Your task to perform on an android device: Open the Play Movies app and select the watchlist tab. Image 0: 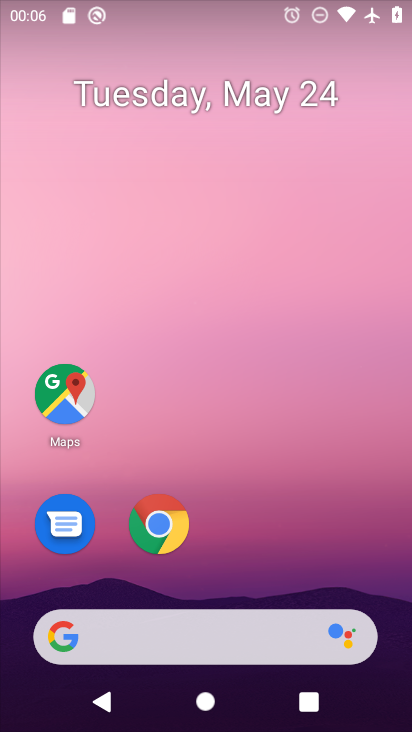
Step 0: drag from (219, 576) to (220, 286)
Your task to perform on an android device: Open the Play Movies app and select the watchlist tab. Image 1: 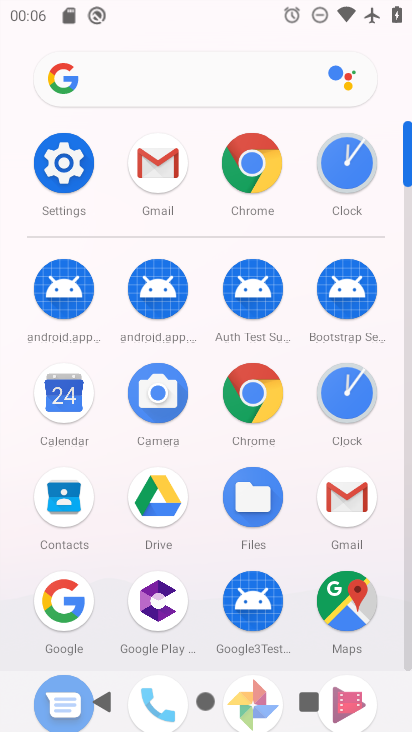
Step 1: drag from (280, 609) to (282, 286)
Your task to perform on an android device: Open the Play Movies app and select the watchlist tab. Image 2: 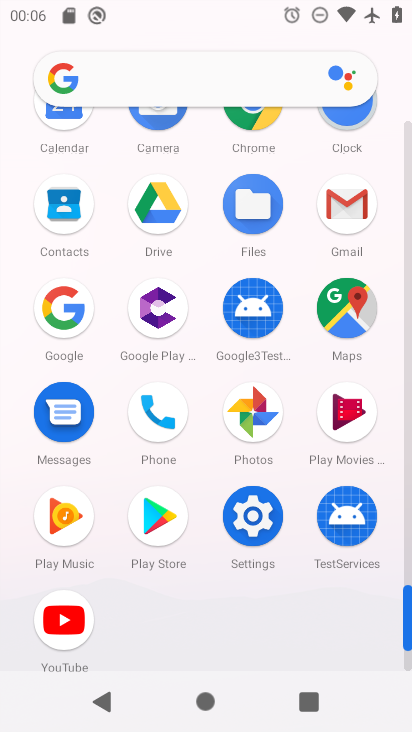
Step 2: click (335, 409)
Your task to perform on an android device: Open the Play Movies app and select the watchlist tab. Image 3: 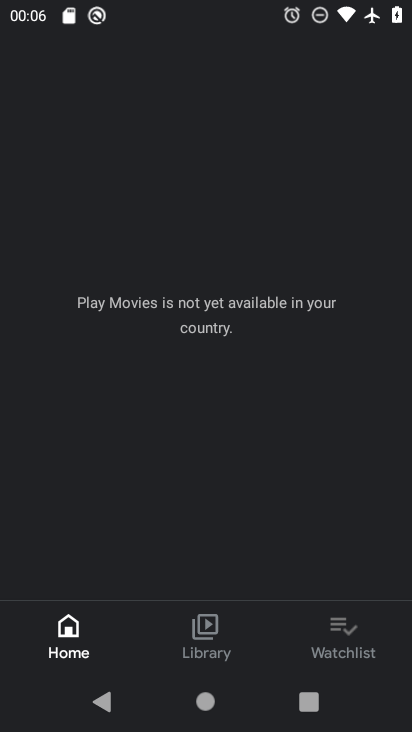
Step 3: click (334, 628)
Your task to perform on an android device: Open the Play Movies app and select the watchlist tab. Image 4: 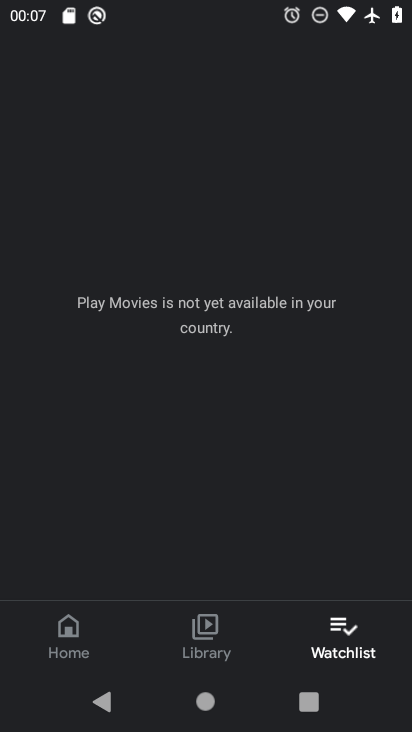
Step 4: task complete